Your task to perform on an android device: Clear the shopping cart on ebay. Image 0: 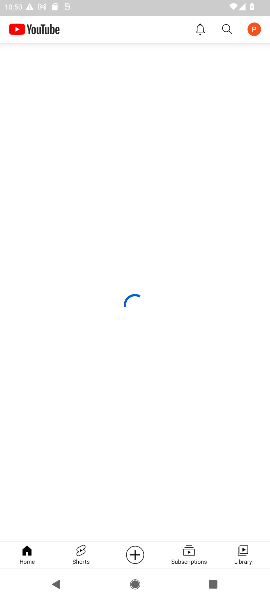
Step 0: press home button
Your task to perform on an android device: Clear the shopping cart on ebay. Image 1: 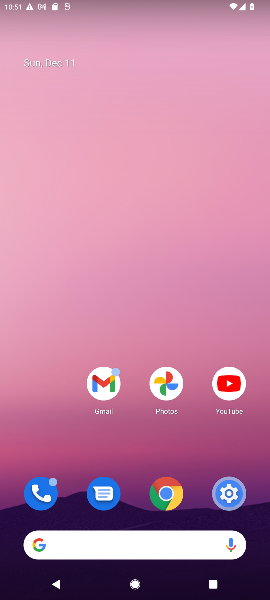
Step 1: click (127, 546)
Your task to perform on an android device: Clear the shopping cart on ebay. Image 2: 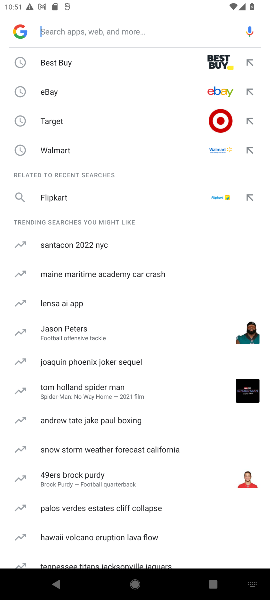
Step 2: click (48, 92)
Your task to perform on an android device: Clear the shopping cart on ebay. Image 3: 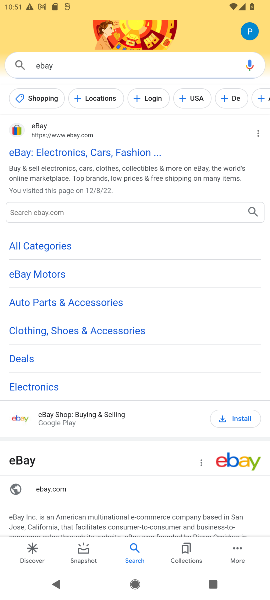
Step 3: click (73, 145)
Your task to perform on an android device: Clear the shopping cart on ebay. Image 4: 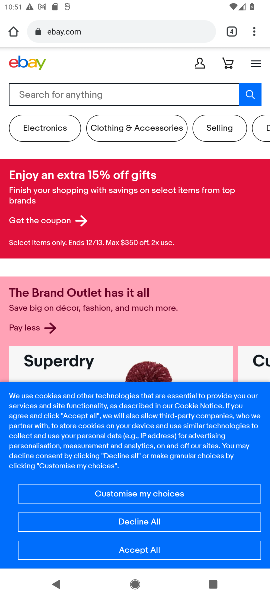
Step 4: click (139, 88)
Your task to perform on an android device: Clear the shopping cart on ebay. Image 5: 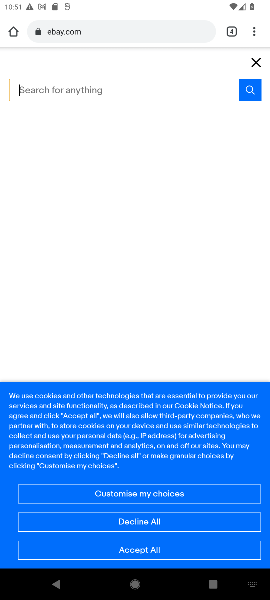
Step 5: type "ebay"
Your task to perform on an android device: Clear the shopping cart on ebay. Image 6: 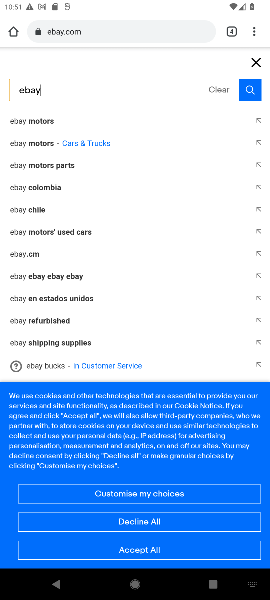
Step 6: click (245, 88)
Your task to perform on an android device: Clear the shopping cart on ebay. Image 7: 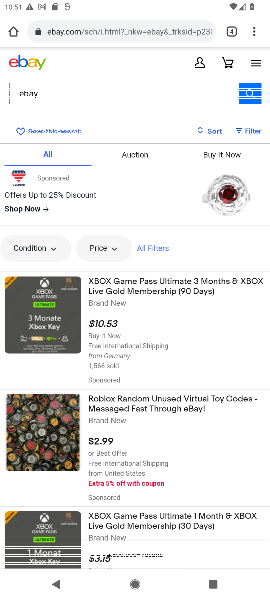
Step 7: click (187, 100)
Your task to perform on an android device: Clear the shopping cart on ebay. Image 8: 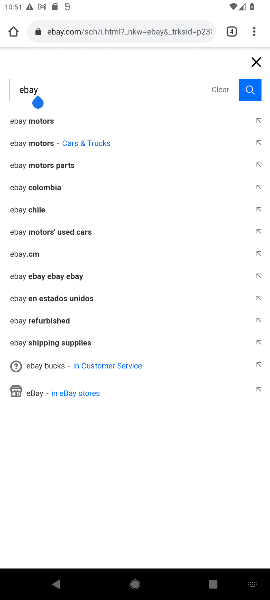
Step 8: click (255, 64)
Your task to perform on an android device: Clear the shopping cart on ebay. Image 9: 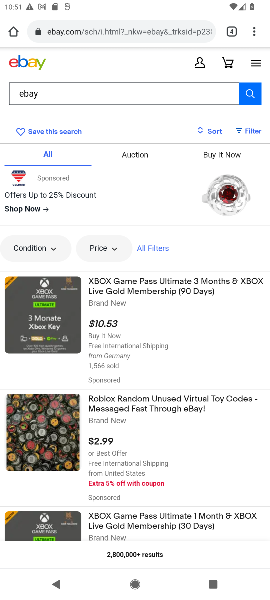
Step 9: click (167, 94)
Your task to perform on an android device: Clear the shopping cart on ebay. Image 10: 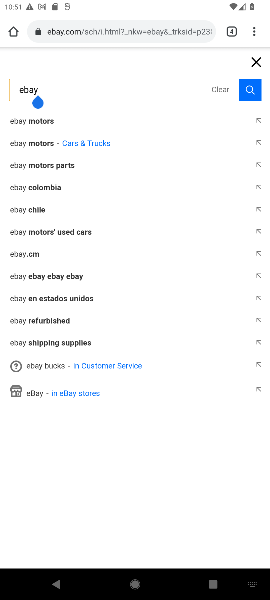
Step 10: click (249, 68)
Your task to perform on an android device: Clear the shopping cart on ebay. Image 11: 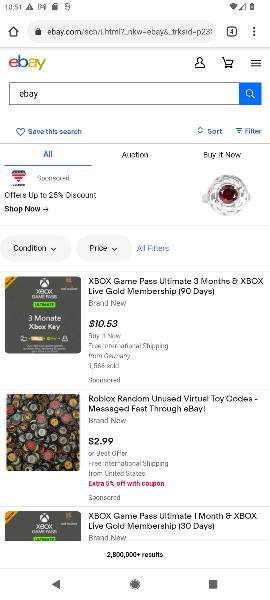
Step 11: click (132, 94)
Your task to perform on an android device: Clear the shopping cart on ebay. Image 12: 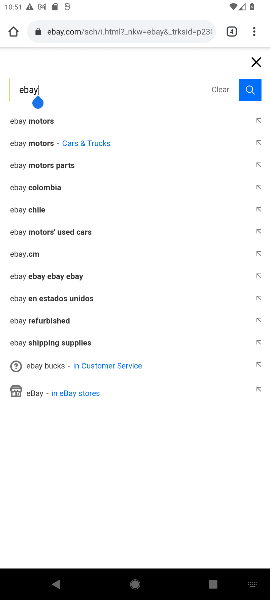
Step 12: click (216, 92)
Your task to perform on an android device: Clear the shopping cart on ebay. Image 13: 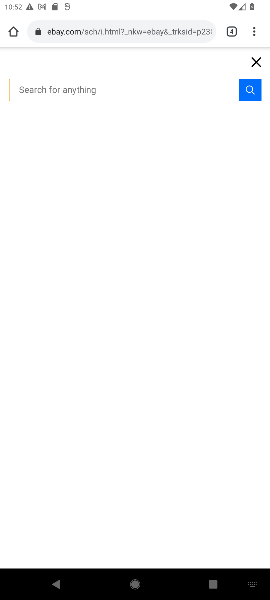
Step 13: type "shopping"
Your task to perform on an android device: Clear the shopping cart on ebay. Image 14: 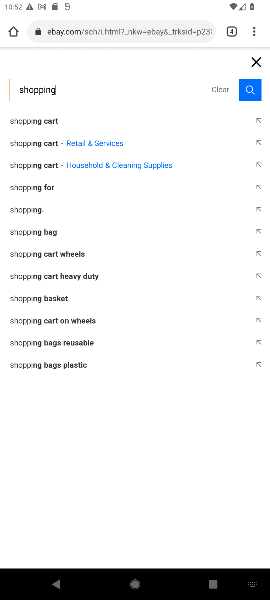
Step 14: click (251, 68)
Your task to perform on an android device: Clear the shopping cart on ebay. Image 15: 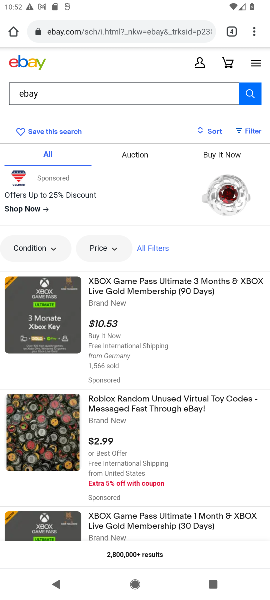
Step 15: click (230, 64)
Your task to perform on an android device: Clear the shopping cart on ebay. Image 16: 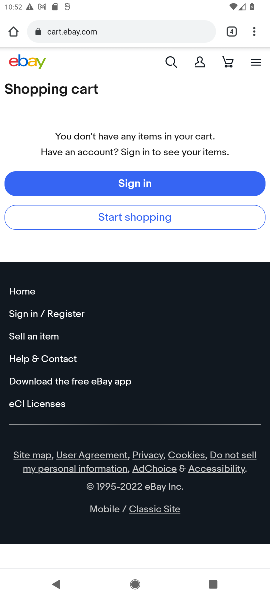
Step 16: task complete